Your task to perform on an android device: turn vacation reply on in the gmail app Image 0: 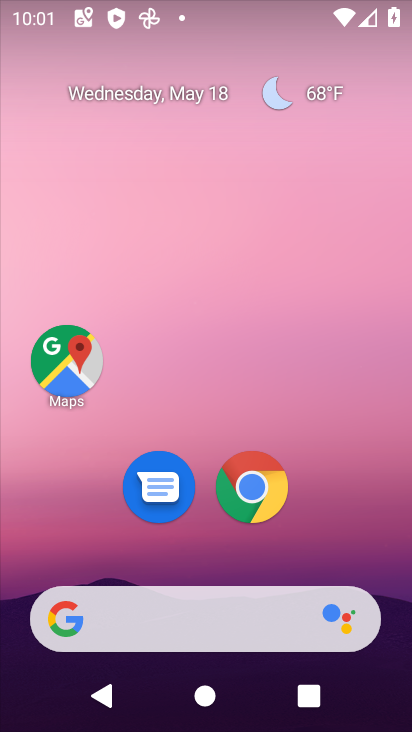
Step 0: drag from (326, 537) to (333, 186)
Your task to perform on an android device: turn vacation reply on in the gmail app Image 1: 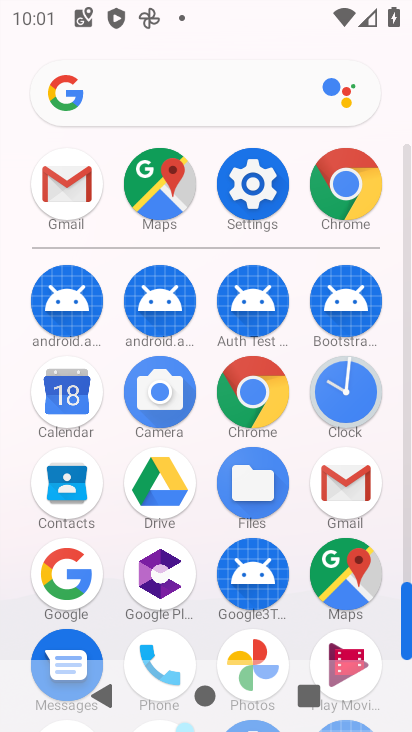
Step 1: click (361, 504)
Your task to perform on an android device: turn vacation reply on in the gmail app Image 2: 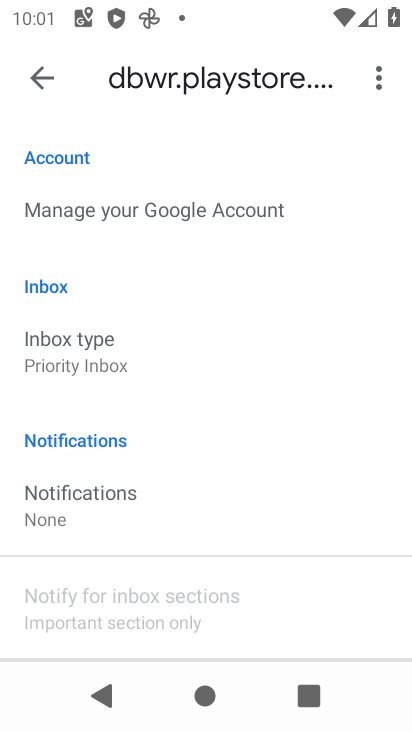
Step 2: drag from (243, 536) to (274, 278)
Your task to perform on an android device: turn vacation reply on in the gmail app Image 3: 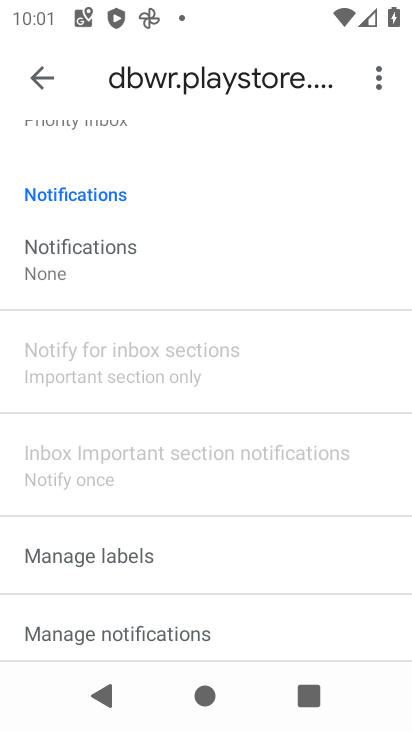
Step 3: drag from (260, 566) to (257, 247)
Your task to perform on an android device: turn vacation reply on in the gmail app Image 4: 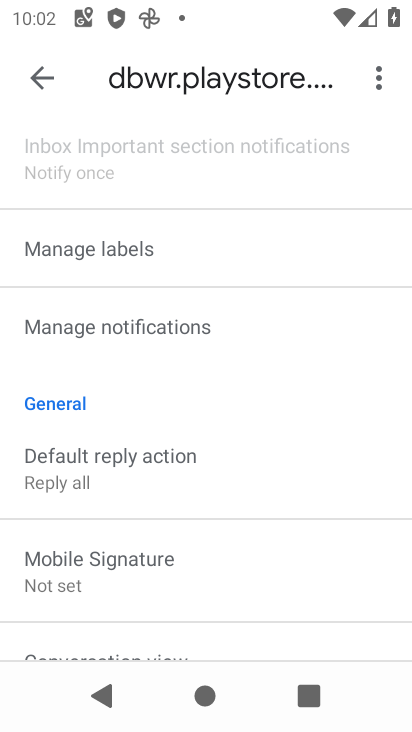
Step 4: drag from (299, 604) to (257, 238)
Your task to perform on an android device: turn vacation reply on in the gmail app Image 5: 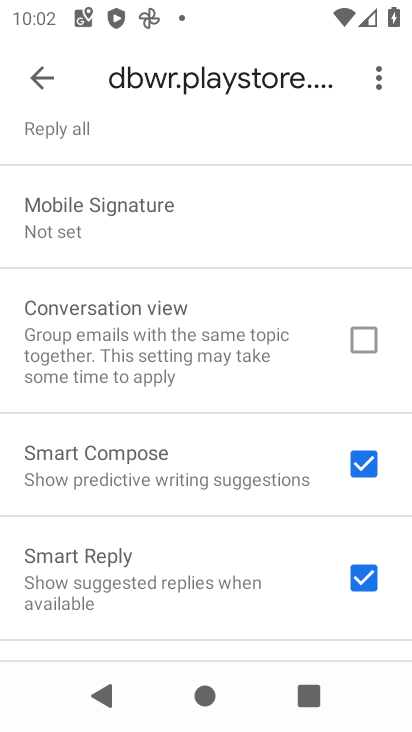
Step 5: drag from (239, 601) to (237, 328)
Your task to perform on an android device: turn vacation reply on in the gmail app Image 6: 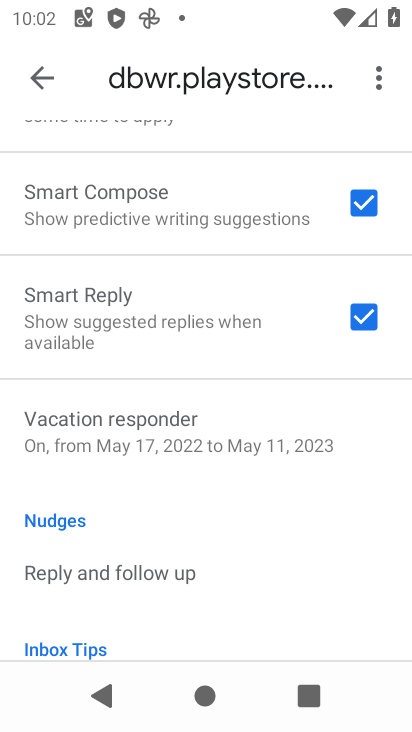
Step 6: click (170, 419)
Your task to perform on an android device: turn vacation reply on in the gmail app Image 7: 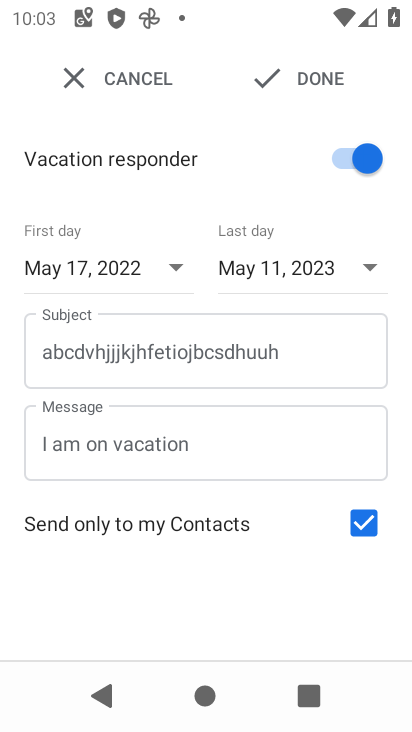
Step 7: task complete